Your task to perform on an android device: turn on the 12-hour format for clock Image 0: 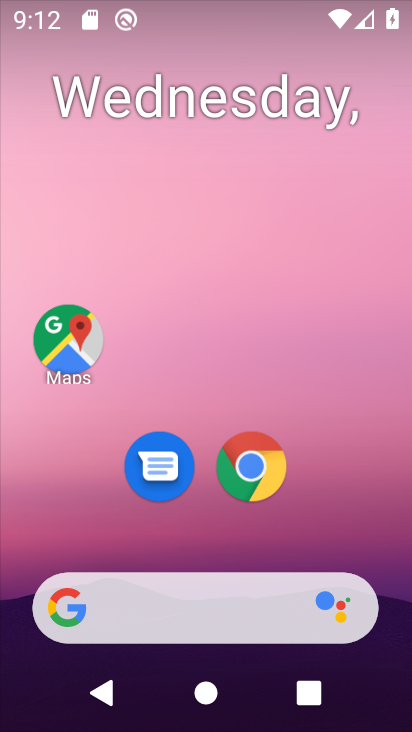
Step 0: drag from (60, 583) to (231, 102)
Your task to perform on an android device: turn on the 12-hour format for clock Image 1: 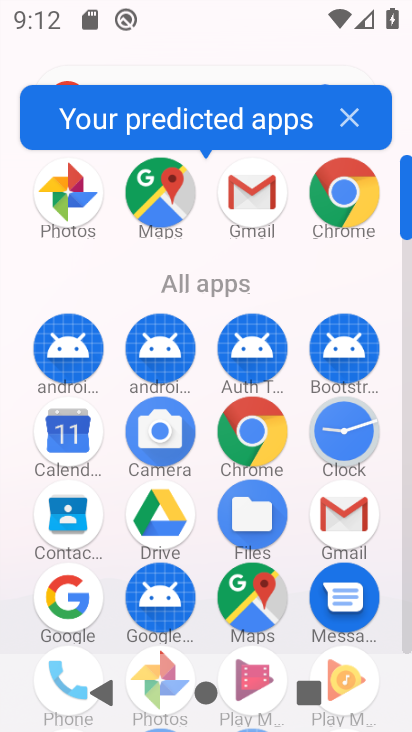
Step 1: click (336, 429)
Your task to perform on an android device: turn on the 12-hour format for clock Image 2: 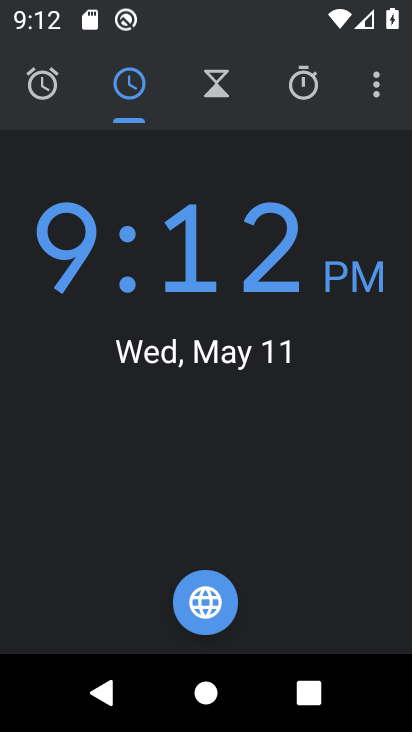
Step 2: click (378, 88)
Your task to perform on an android device: turn on the 12-hour format for clock Image 3: 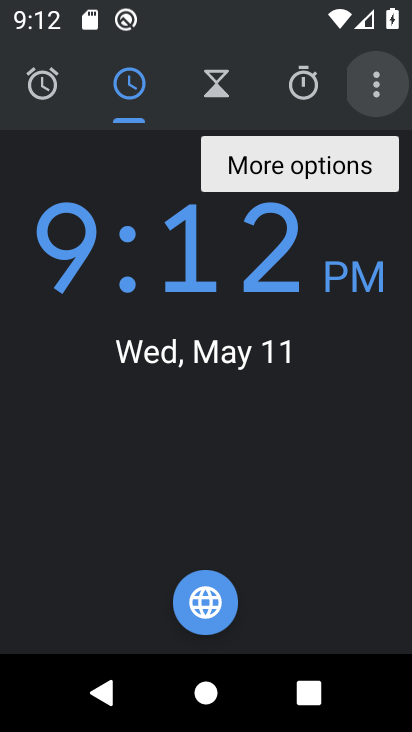
Step 3: click (379, 80)
Your task to perform on an android device: turn on the 12-hour format for clock Image 4: 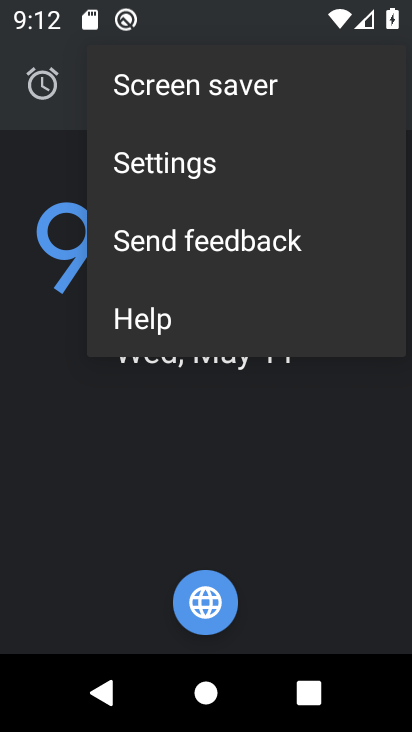
Step 4: click (290, 174)
Your task to perform on an android device: turn on the 12-hour format for clock Image 5: 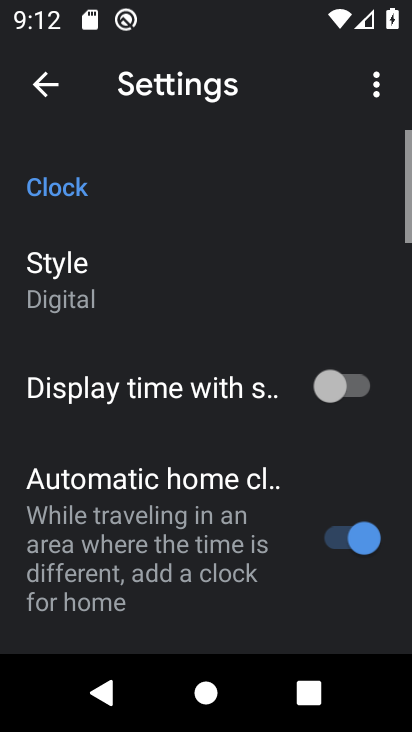
Step 5: drag from (194, 578) to (249, 252)
Your task to perform on an android device: turn on the 12-hour format for clock Image 6: 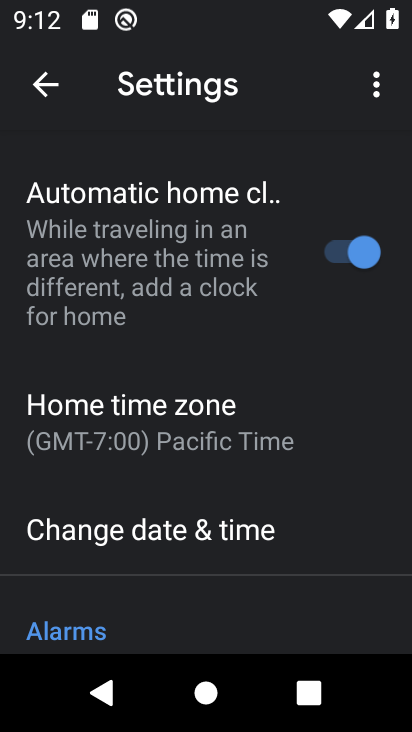
Step 6: click (230, 529)
Your task to perform on an android device: turn on the 12-hour format for clock Image 7: 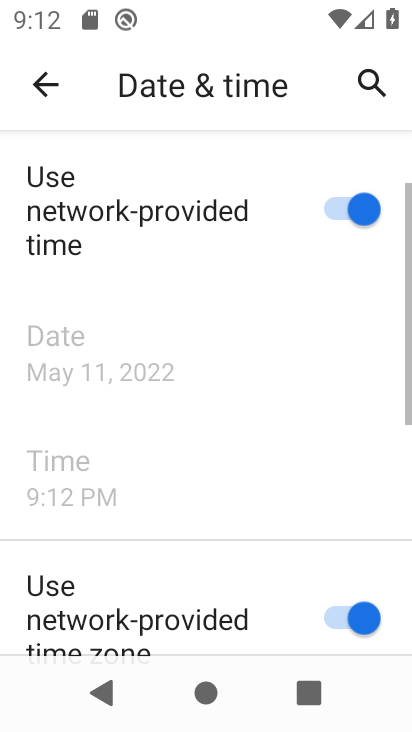
Step 7: task complete